Your task to perform on an android device: Do I have any events tomorrow? Image 0: 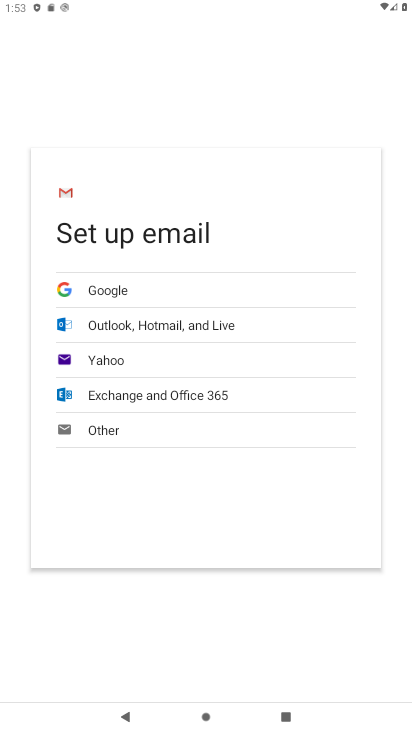
Step 0: press home button
Your task to perform on an android device: Do I have any events tomorrow? Image 1: 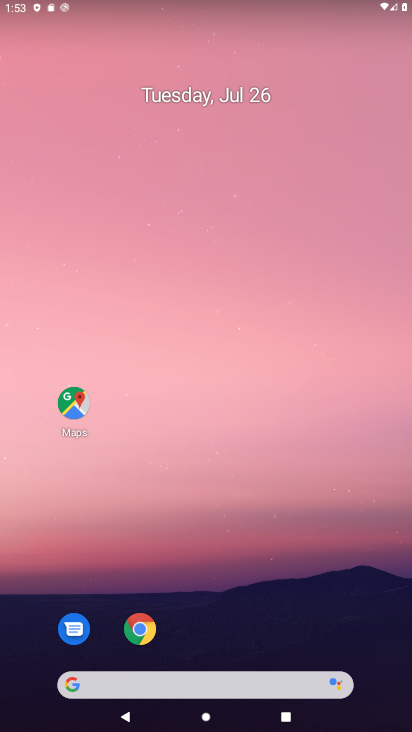
Step 1: drag from (199, 637) to (210, 12)
Your task to perform on an android device: Do I have any events tomorrow? Image 2: 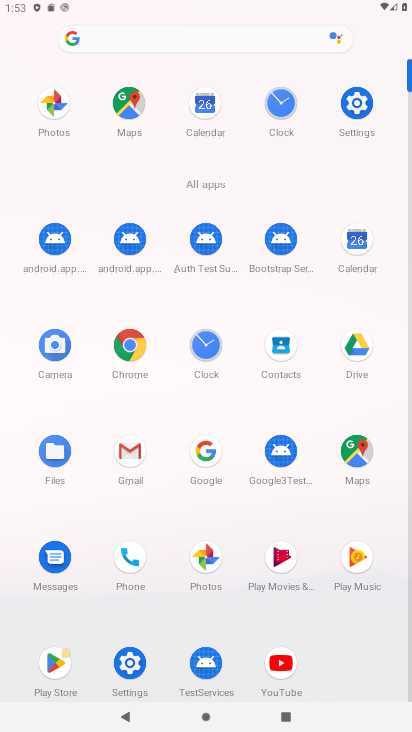
Step 2: click (347, 250)
Your task to perform on an android device: Do I have any events tomorrow? Image 3: 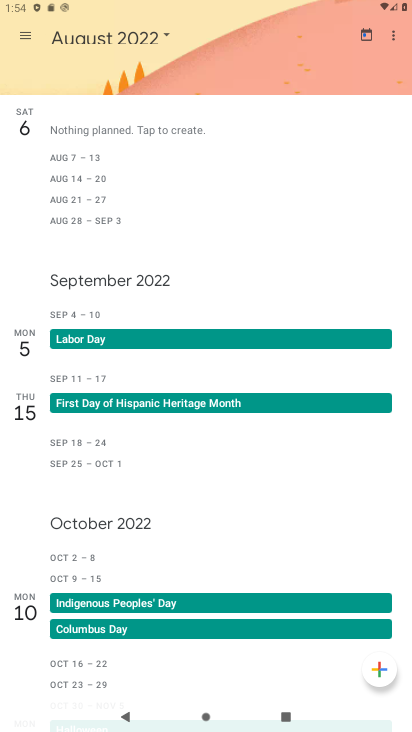
Step 3: task complete